Your task to perform on an android device: Check my email inbox Image 0: 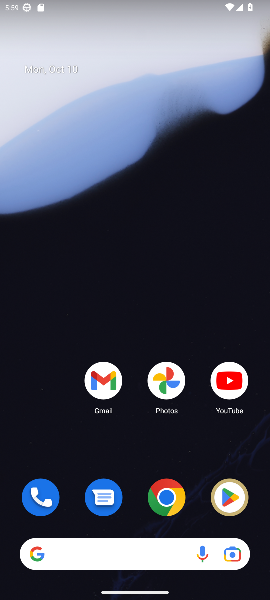
Step 0: click (131, 517)
Your task to perform on an android device: Check my email inbox Image 1: 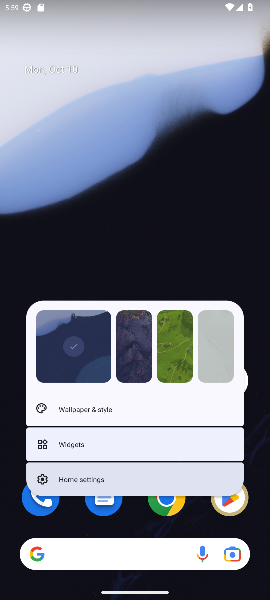
Step 1: click (108, 371)
Your task to perform on an android device: Check my email inbox Image 2: 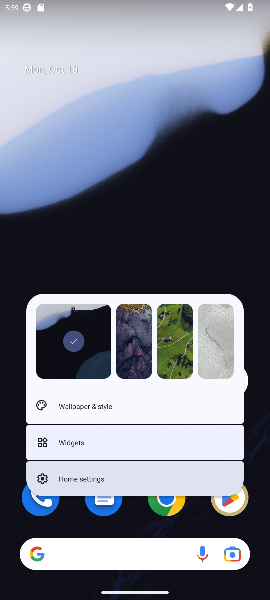
Step 2: click (207, 153)
Your task to perform on an android device: Check my email inbox Image 3: 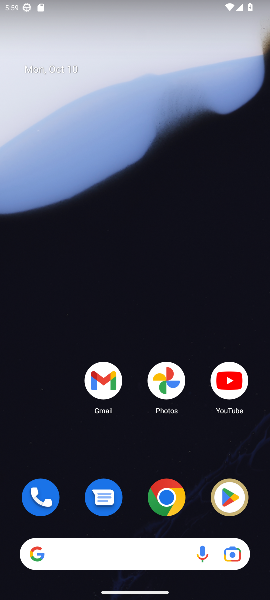
Step 3: click (102, 377)
Your task to perform on an android device: Check my email inbox Image 4: 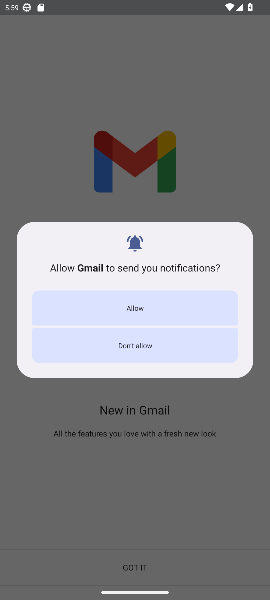
Step 4: click (140, 321)
Your task to perform on an android device: Check my email inbox Image 5: 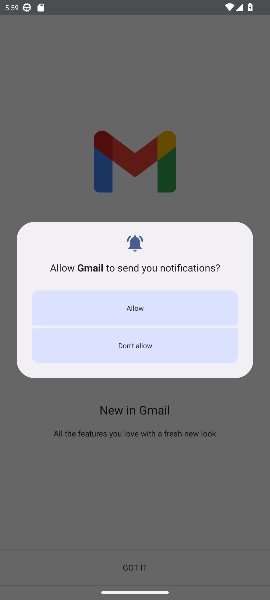
Step 5: click (141, 313)
Your task to perform on an android device: Check my email inbox Image 6: 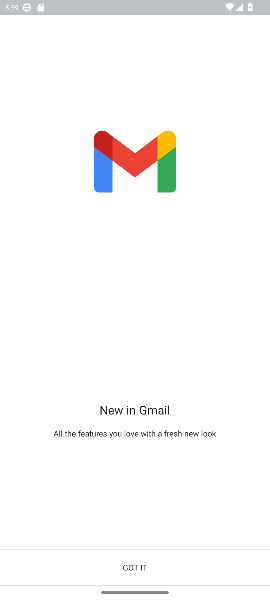
Step 6: click (120, 578)
Your task to perform on an android device: Check my email inbox Image 7: 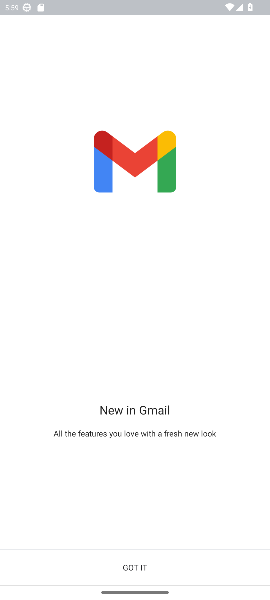
Step 7: click (126, 574)
Your task to perform on an android device: Check my email inbox Image 8: 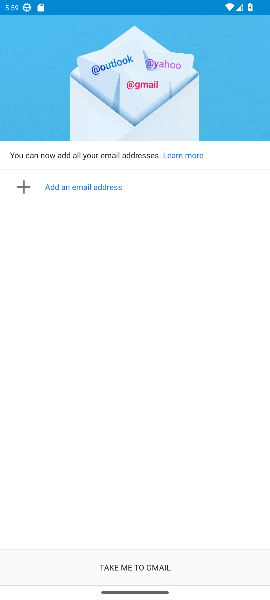
Step 8: click (141, 559)
Your task to perform on an android device: Check my email inbox Image 9: 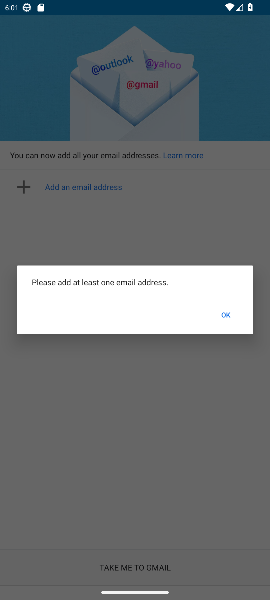
Step 9: task complete